Your task to perform on an android device: find snoozed emails in the gmail app Image 0: 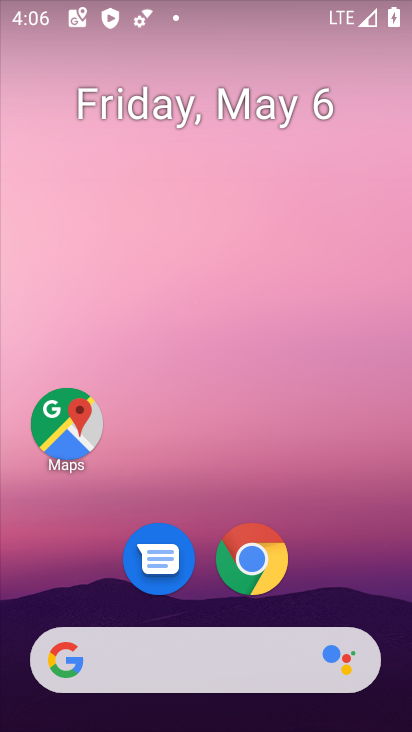
Step 0: drag from (171, 602) to (213, 230)
Your task to perform on an android device: find snoozed emails in the gmail app Image 1: 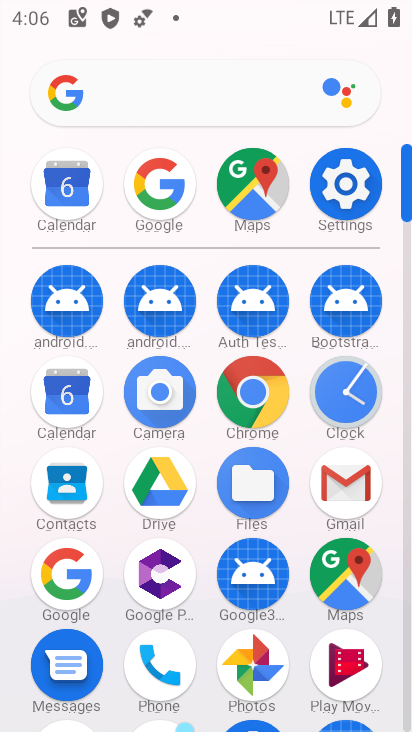
Step 1: click (361, 483)
Your task to perform on an android device: find snoozed emails in the gmail app Image 2: 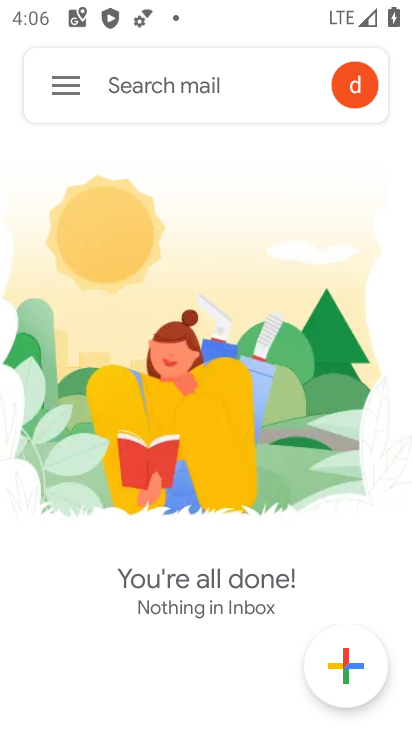
Step 2: click (57, 88)
Your task to perform on an android device: find snoozed emails in the gmail app Image 3: 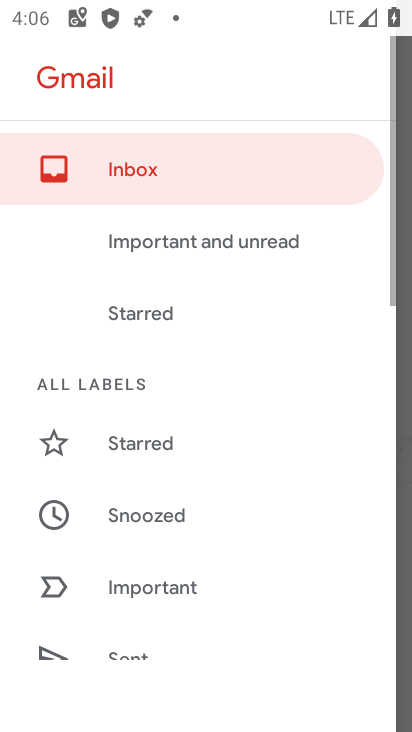
Step 3: click (130, 515)
Your task to perform on an android device: find snoozed emails in the gmail app Image 4: 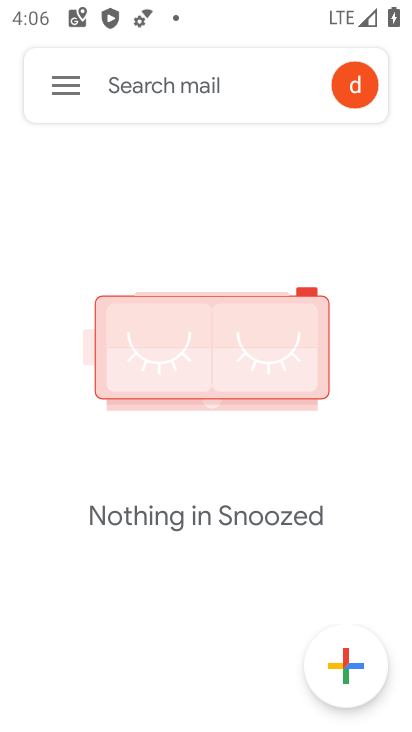
Step 4: task complete